Your task to perform on an android device: move a message to another label in the gmail app Image 0: 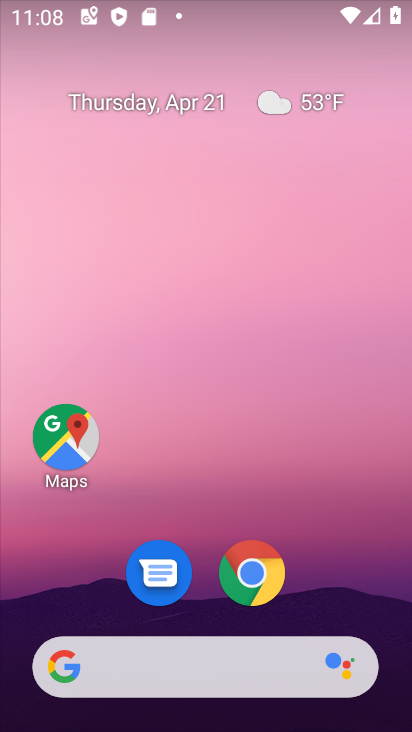
Step 0: drag from (330, 570) to (352, 103)
Your task to perform on an android device: move a message to another label in the gmail app Image 1: 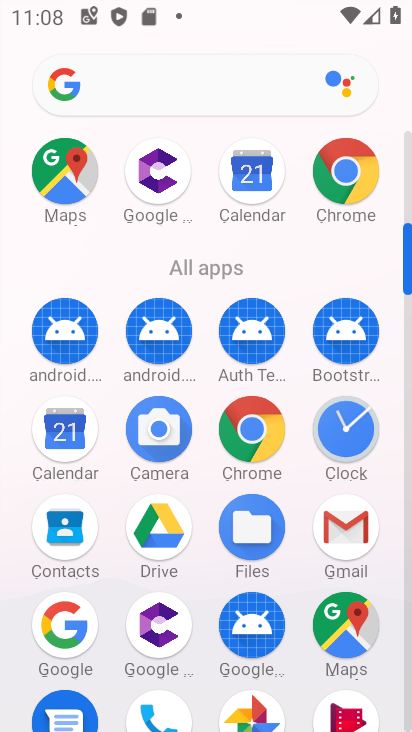
Step 1: click (351, 533)
Your task to perform on an android device: move a message to another label in the gmail app Image 2: 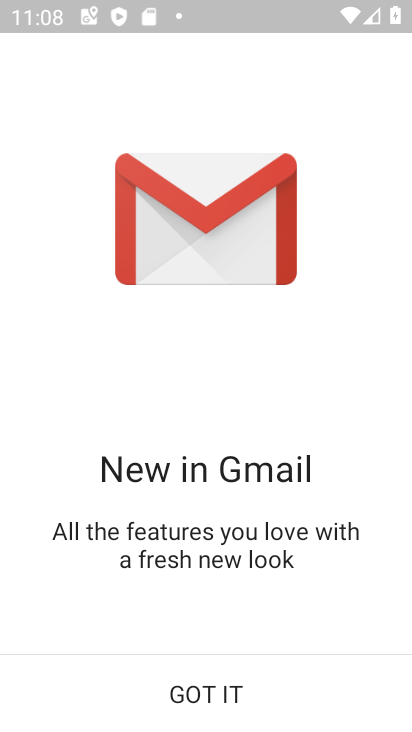
Step 2: click (209, 684)
Your task to perform on an android device: move a message to another label in the gmail app Image 3: 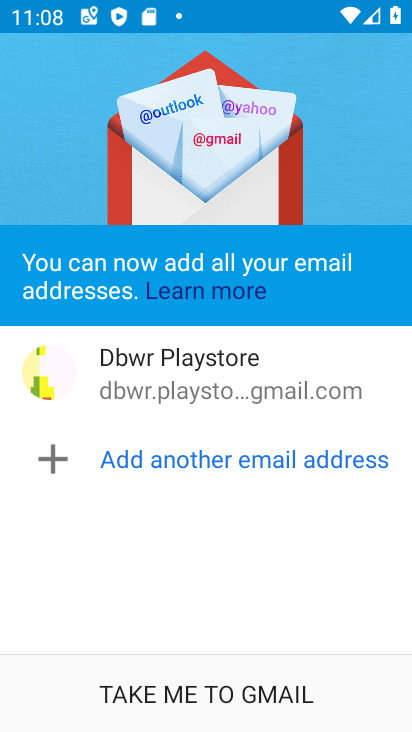
Step 3: click (209, 684)
Your task to perform on an android device: move a message to another label in the gmail app Image 4: 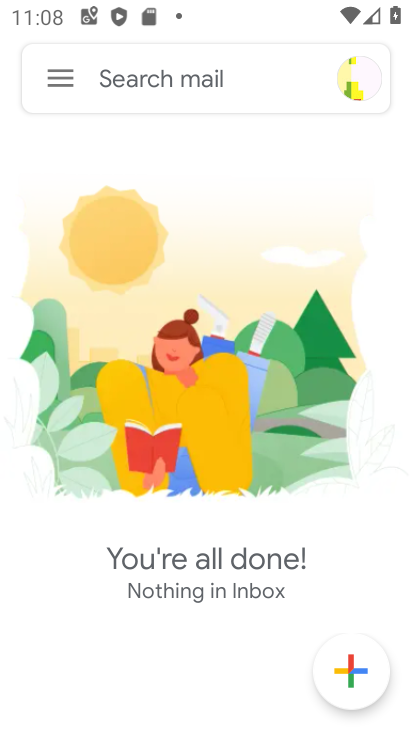
Step 4: task complete